Your task to perform on an android device: change keyboard looks Image 0: 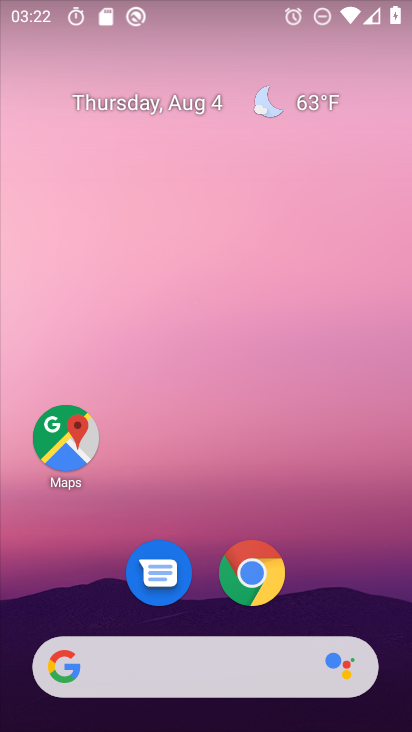
Step 0: drag from (343, 588) to (329, 150)
Your task to perform on an android device: change keyboard looks Image 1: 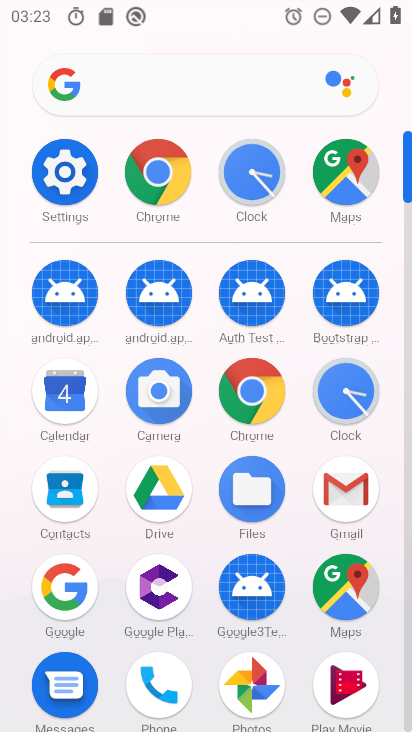
Step 1: click (64, 178)
Your task to perform on an android device: change keyboard looks Image 2: 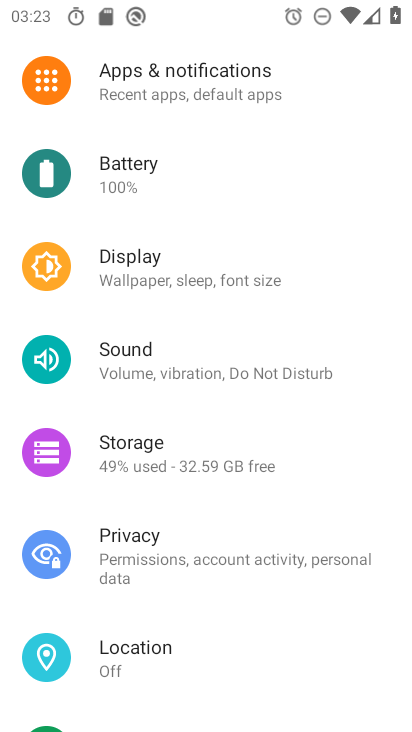
Step 2: drag from (285, 627) to (277, 222)
Your task to perform on an android device: change keyboard looks Image 3: 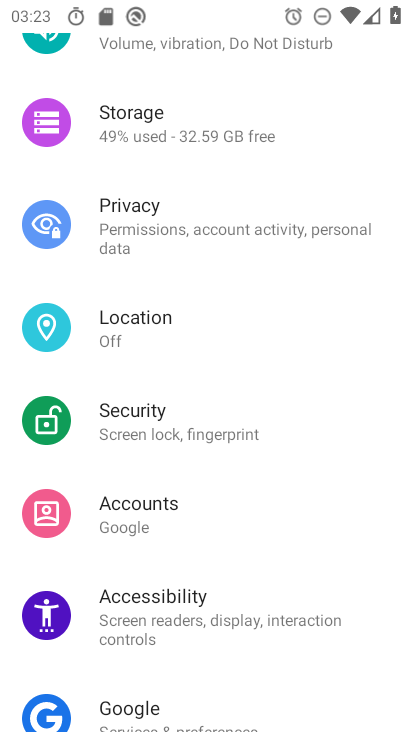
Step 3: drag from (249, 575) to (263, 284)
Your task to perform on an android device: change keyboard looks Image 4: 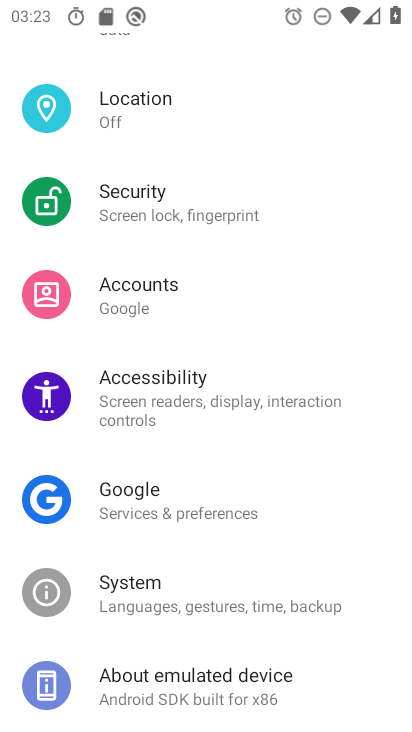
Step 4: click (172, 595)
Your task to perform on an android device: change keyboard looks Image 5: 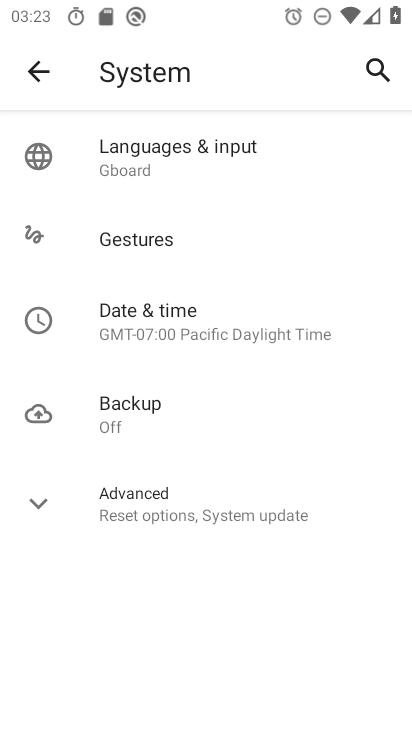
Step 5: click (157, 145)
Your task to perform on an android device: change keyboard looks Image 6: 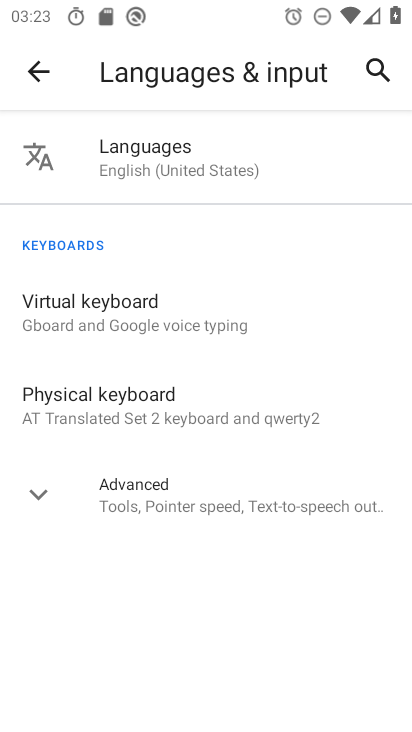
Step 6: click (121, 316)
Your task to perform on an android device: change keyboard looks Image 7: 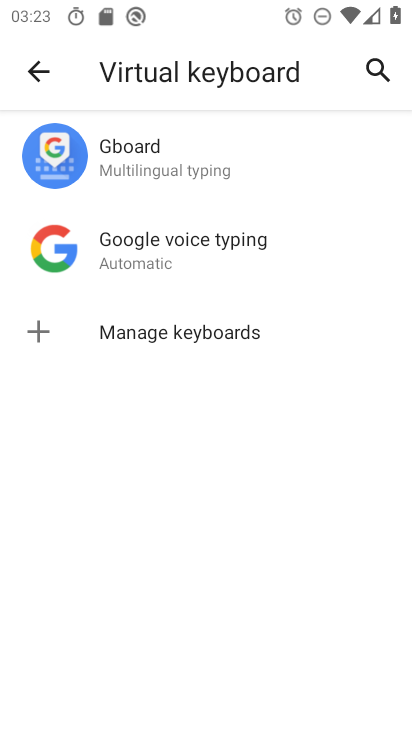
Step 7: click (130, 150)
Your task to perform on an android device: change keyboard looks Image 8: 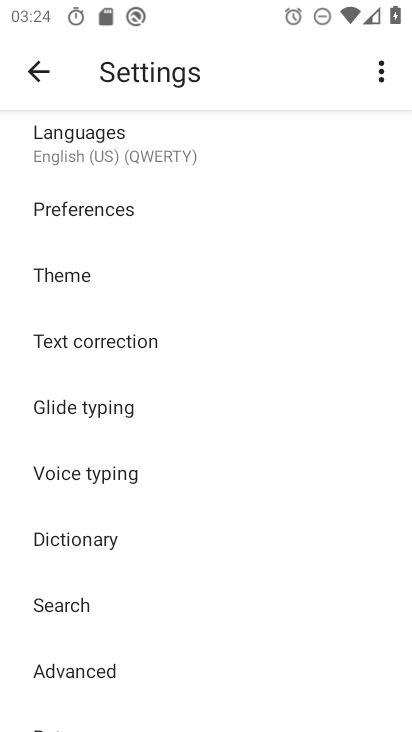
Step 8: click (79, 283)
Your task to perform on an android device: change keyboard looks Image 9: 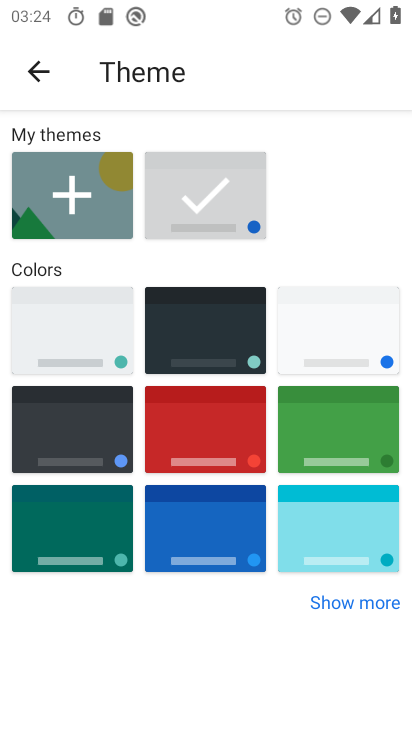
Step 9: click (90, 324)
Your task to perform on an android device: change keyboard looks Image 10: 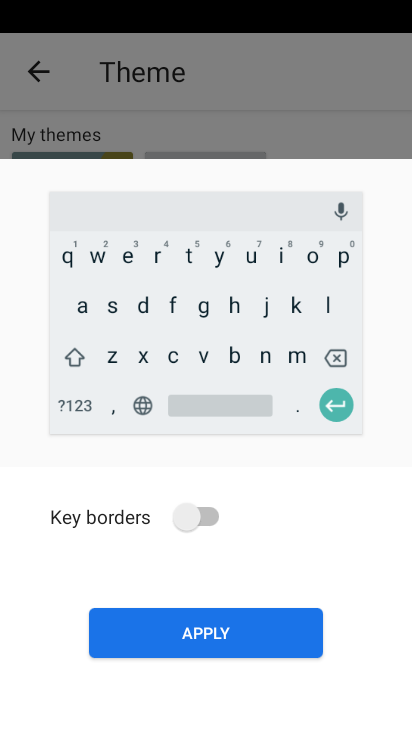
Step 10: click (245, 622)
Your task to perform on an android device: change keyboard looks Image 11: 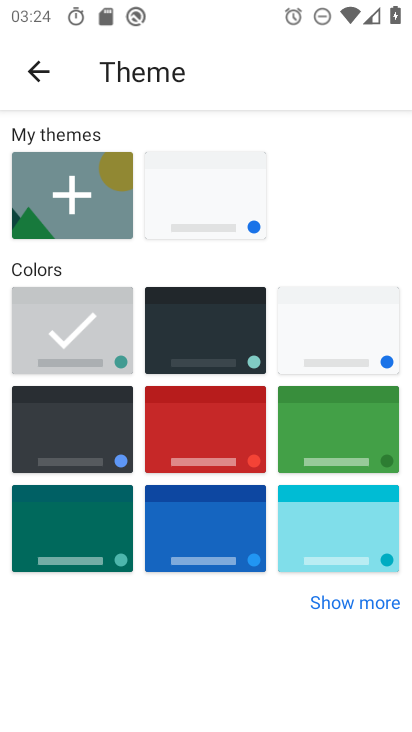
Step 11: task complete